Your task to perform on an android device: Go to Maps Image 0: 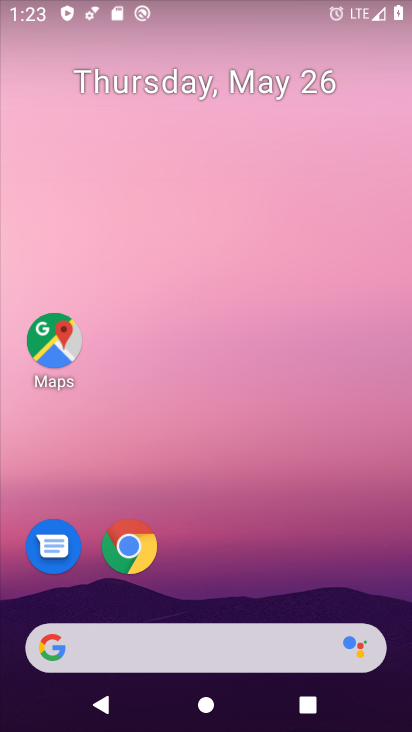
Step 0: drag from (395, 622) to (317, 234)
Your task to perform on an android device: Go to Maps Image 1: 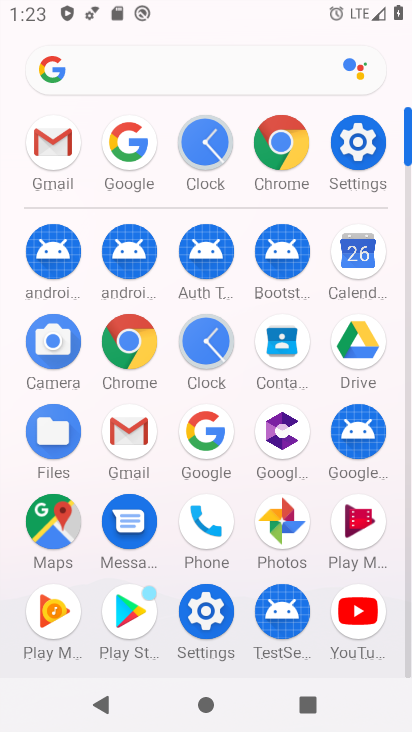
Step 1: click (65, 523)
Your task to perform on an android device: Go to Maps Image 2: 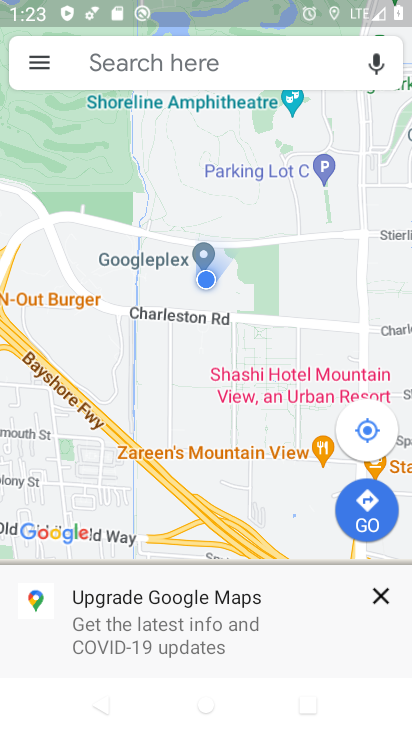
Step 2: task complete